Your task to perform on an android device: allow cookies in the chrome app Image 0: 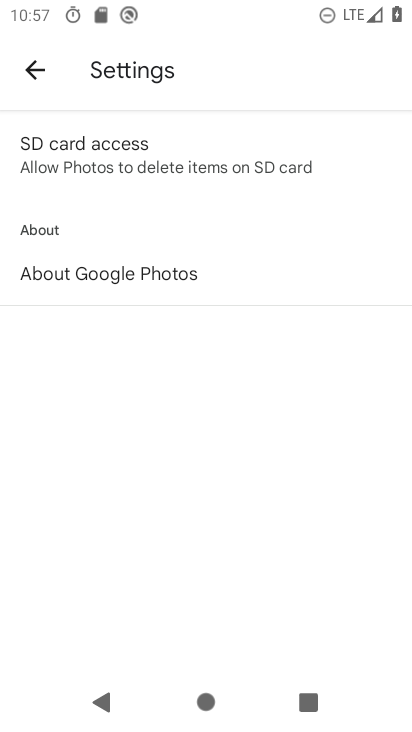
Step 0: click (33, 66)
Your task to perform on an android device: allow cookies in the chrome app Image 1: 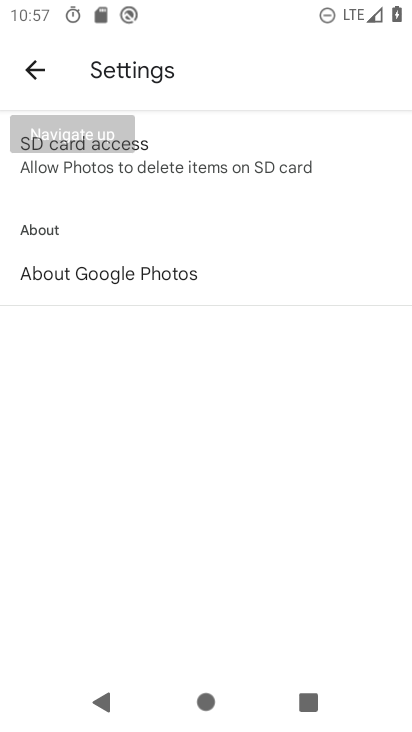
Step 1: press home button
Your task to perform on an android device: allow cookies in the chrome app Image 2: 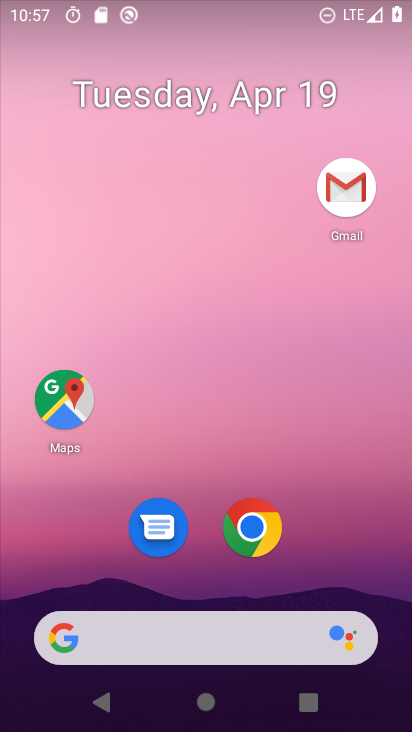
Step 2: drag from (372, 311) to (372, 164)
Your task to perform on an android device: allow cookies in the chrome app Image 3: 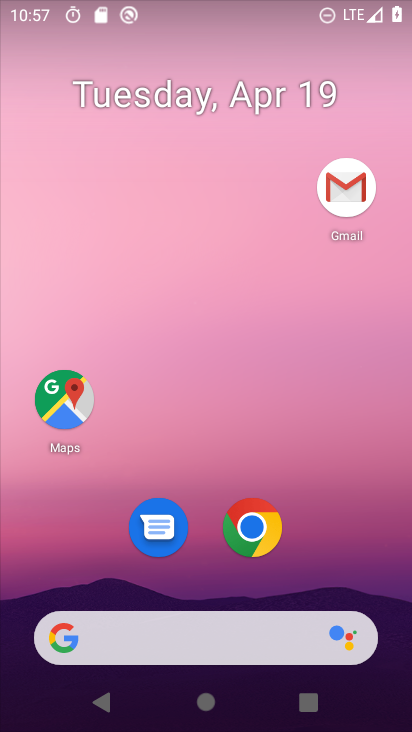
Step 3: click (275, 540)
Your task to perform on an android device: allow cookies in the chrome app Image 4: 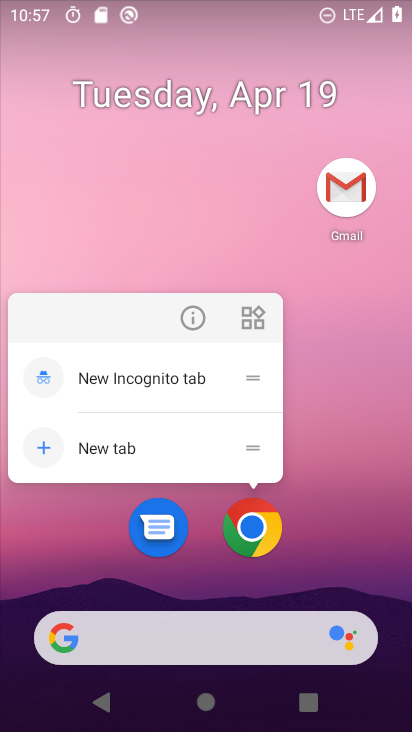
Step 4: drag from (340, 278) to (340, 137)
Your task to perform on an android device: allow cookies in the chrome app Image 5: 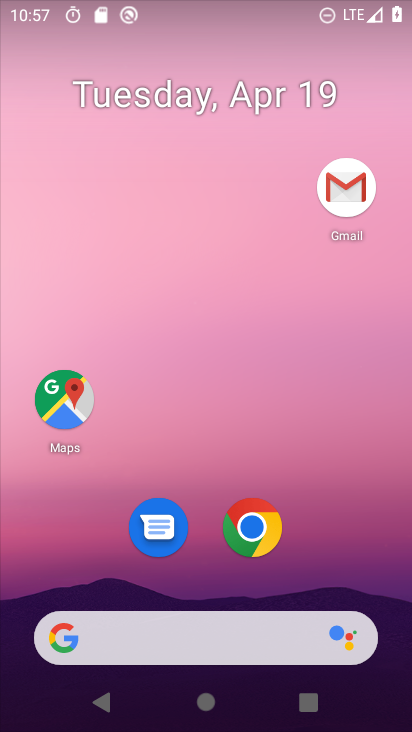
Step 5: drag from (351, 541) to (359, 73)
Your task to perform on an android device: allow cookies in the chrome app Image 6: 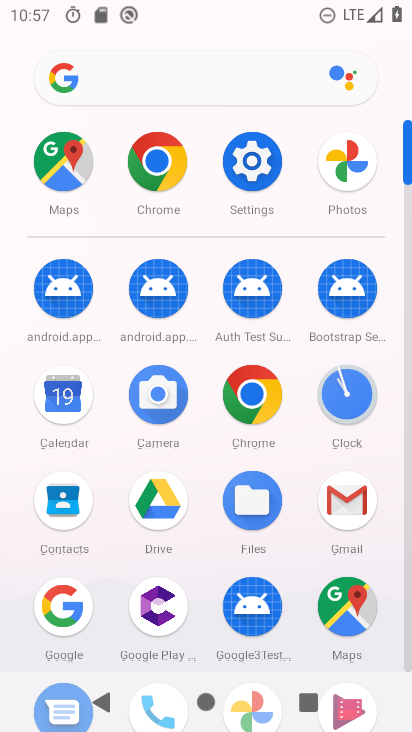
Step 6: click (151, 168)
Your task to perform on an android device: allow cookies in the chrome app Image 7: 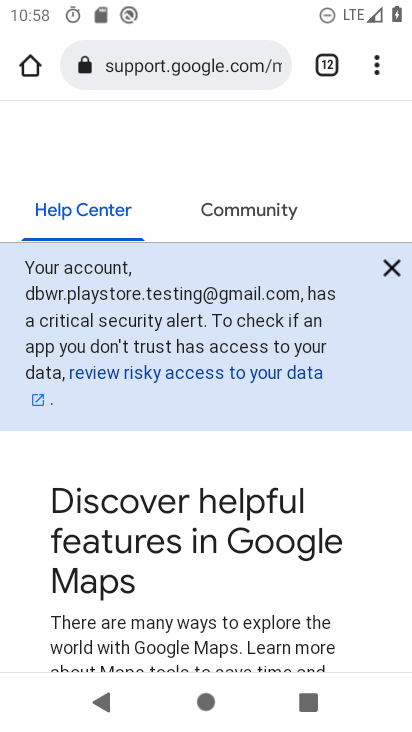
Step 7: drag from (387, 74) to (241, 550)
Your task to perform on an android device: allow cookies in the chrome app Image 8: 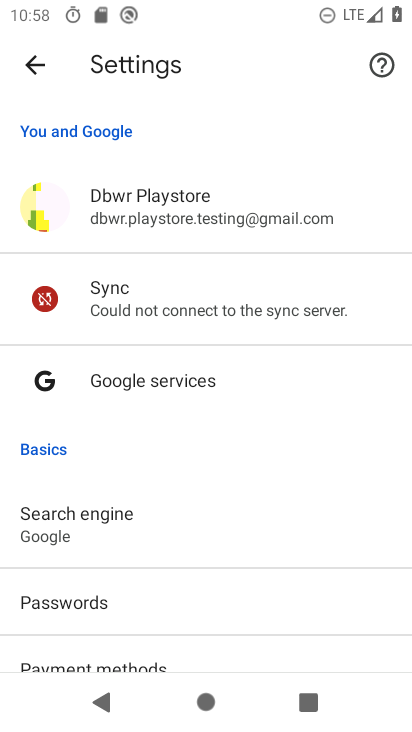
Step 8: drag from (287, 582) to (308, 196)
Your task to perform on an android device: allow cookies in the chrome app Image 9: 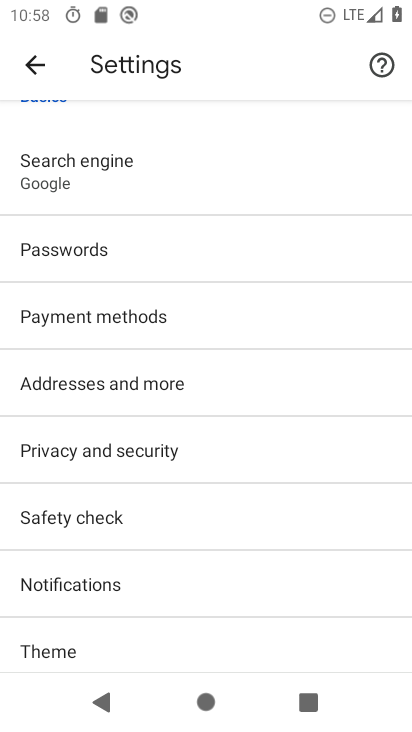
Step 9: drag from (240, 589) to (301, 226)
Your task to perform on an android device: allow cookies in the chrome app Image 10: 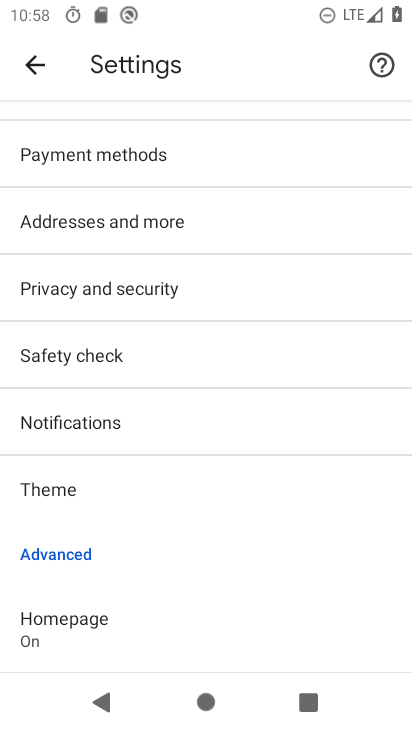
Step 10: drag from (247, 532) to (286, 213)
Your task to perform on an android device: allow cookies in the chrome app Image 11: 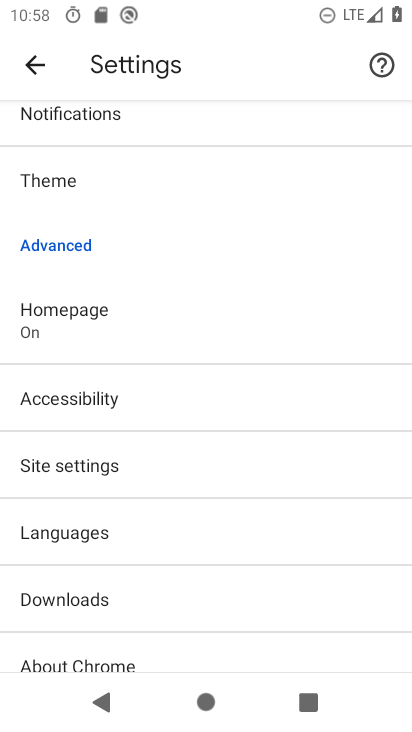
Step 11: click (70, 468)
Your task to perform on an android device: allow cookies in the chrome app Image 12: 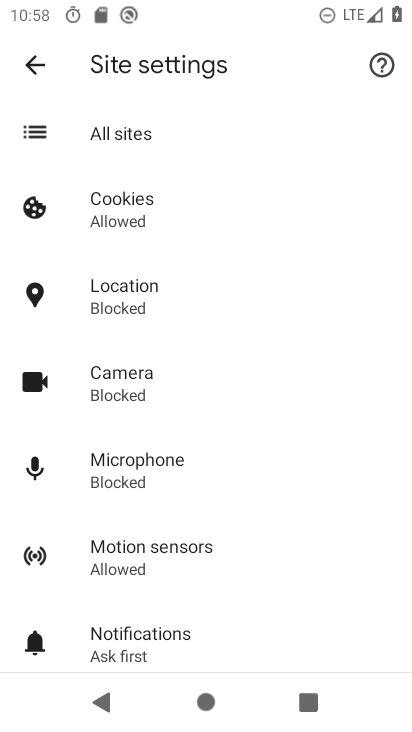
Step 12: click (131, 195)
Your task to perform on an android device: allow cookies in the chrome app Image 13: 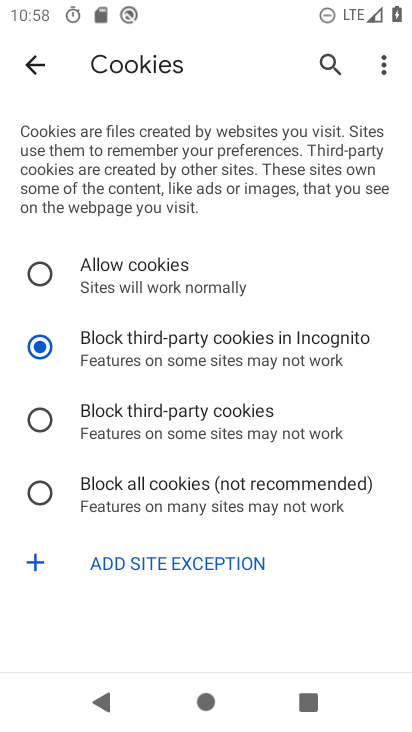
Step 13: click (40, 268)
Your task to perform on an android device: allow cookies in the chrome app Image 14: 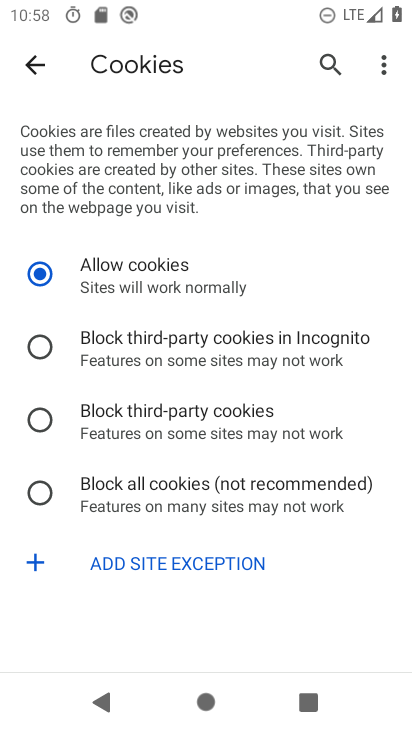
Step 14: task complete